Your task to perform on an android device: turn on showing notifications on the lock screen Image 0: 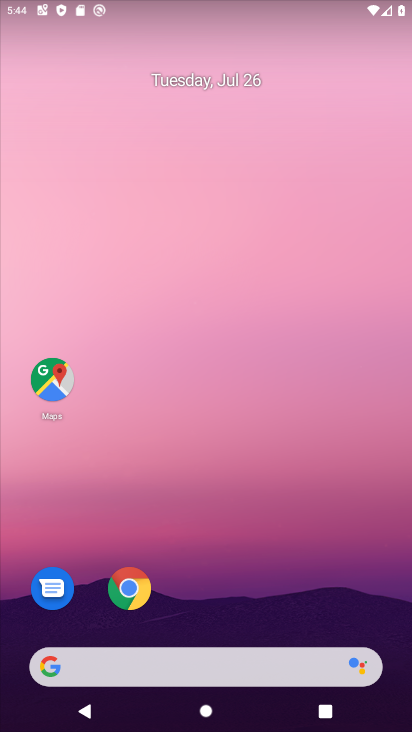
Step 0: drag from (298, 590) to (389, 240)
Your task to perform on an android device: turn on showing notifications on the lock screen Image 1: 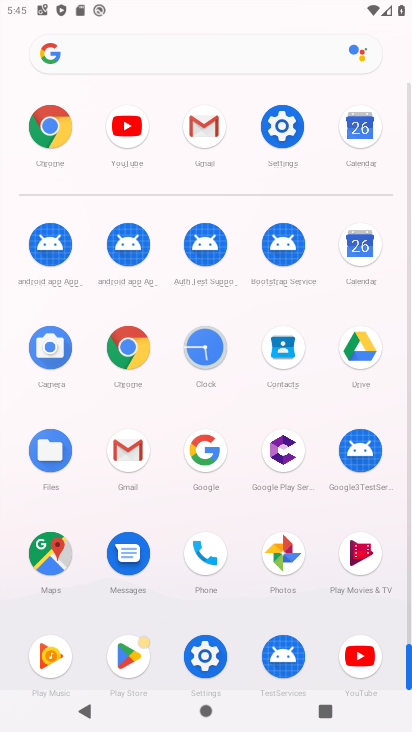
Step 1: click (291, 135)
Your task to perform on an android device: turn on showing notifications on the lock screen Image 2: 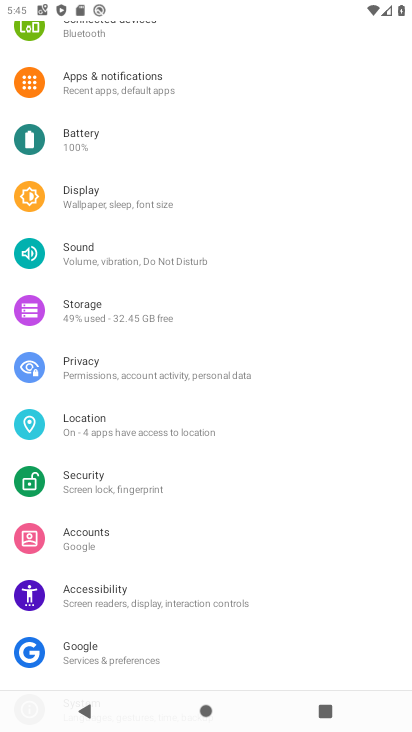
Step 2: click (192, 78)
Your task to perform on an android device: turn on showing notifications on the lock screen Image 3: 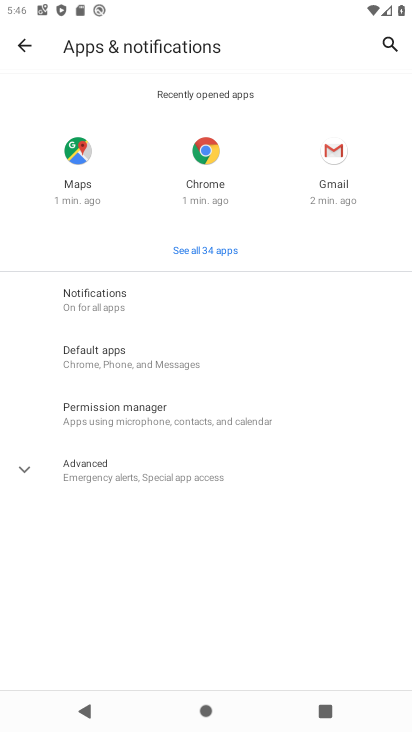
Step 3: click (153, 299)
Your task to perform on an android device: turn on showing notifications on the lock screen Image 4: 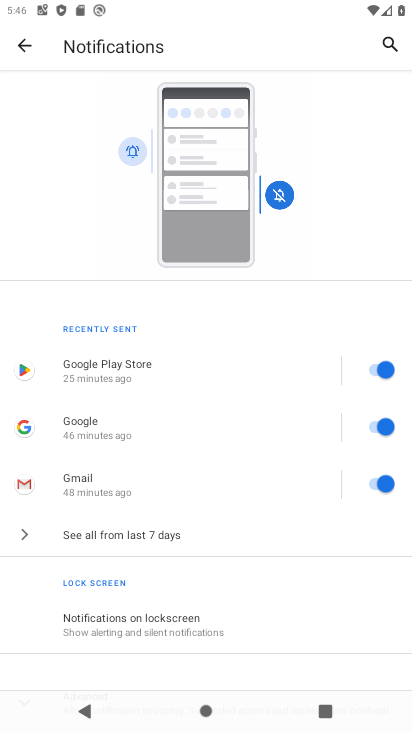
Step 4: click (140, 627)
Your task to perform on an android device: turn on showing notifications on the lock screen Image 5: 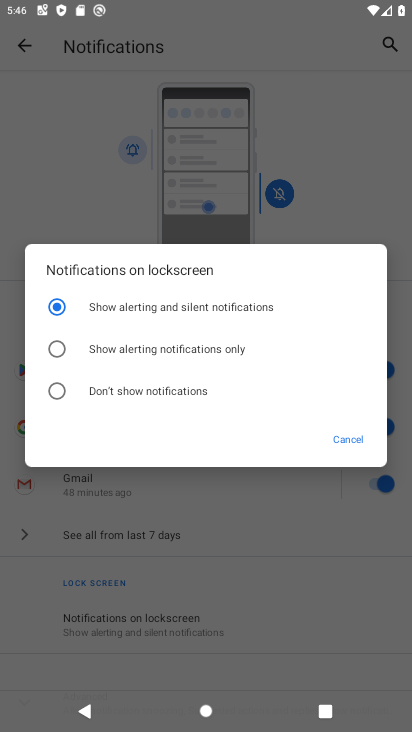
Step 5: task complete